Your task to perform on an android device: Find coffee shops on Maps Image 0: 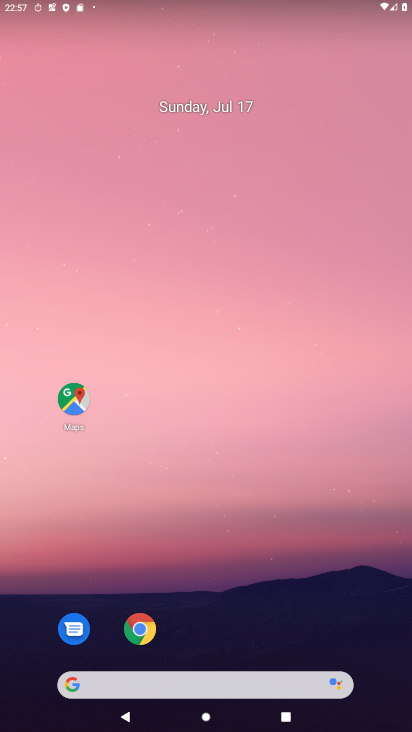
Step 0: drag from (219, 719) to (219, 109)
Your task to perform on an android device: Find coffee shops on Maps Image 1: 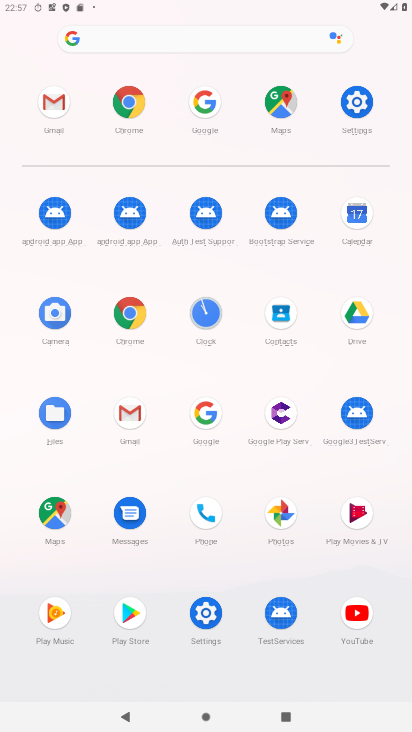
Step 1: click (51, 509)
Your task to perform on an android device: Find coffee shops on Maps Image 2: 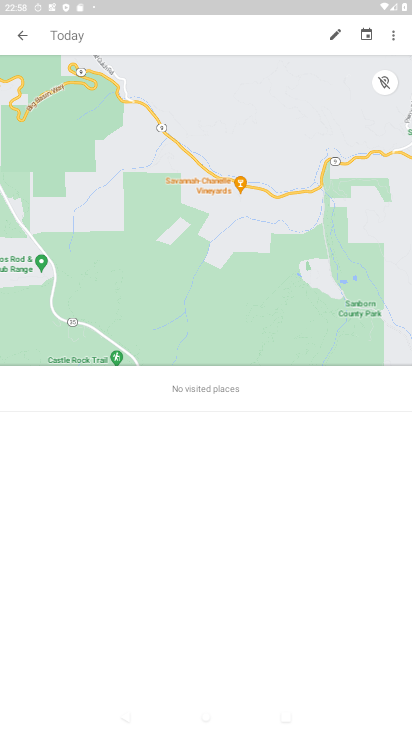
Step 2: click (23, 31)
Your task to perform on an android device: Find coffee shops on Maps Image 3: 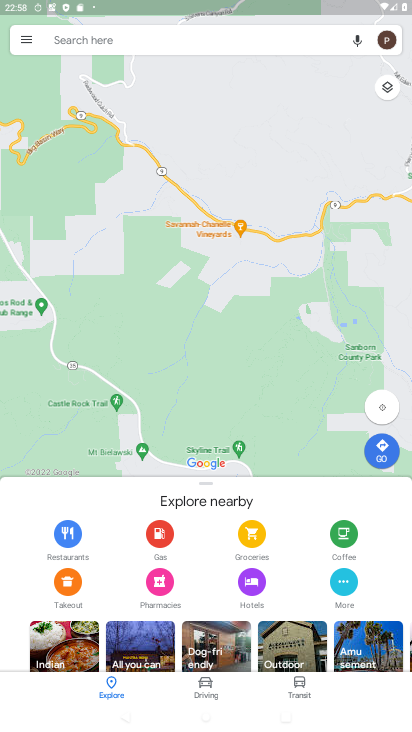
Step 3: click (197, 37)
Your task to perform on an android device: Find coffee shops on Maps Image 4: 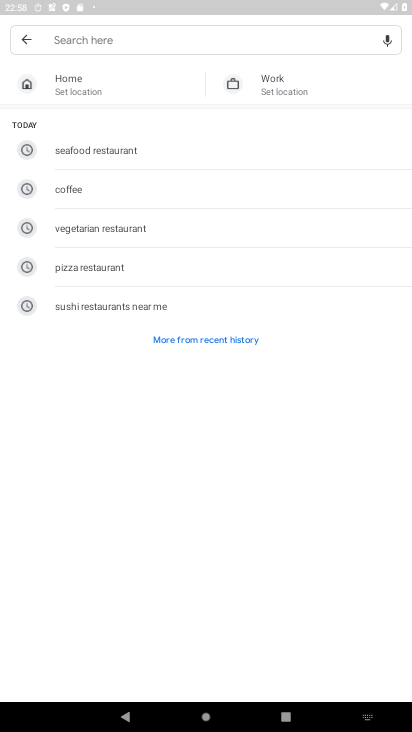
Step 4: type "coffee shops"
Your task to perform on an android device: Find coffee shops on Maps Image 5: 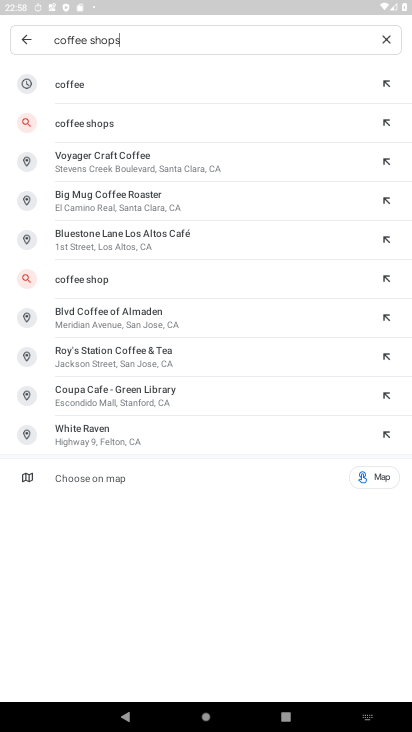
Step 5: click (90, 122)
Your task to perform on an android device: Find coffee shops on Maps Image 6: 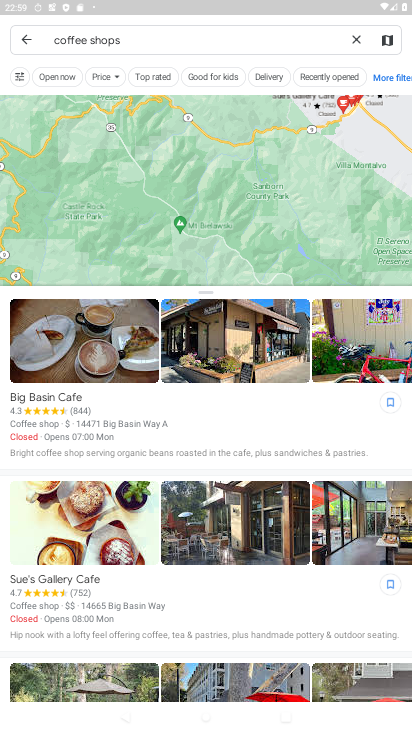
Step 6: task complete